Your task to perform on an android device: open app "Nova Launcher" Image 0: 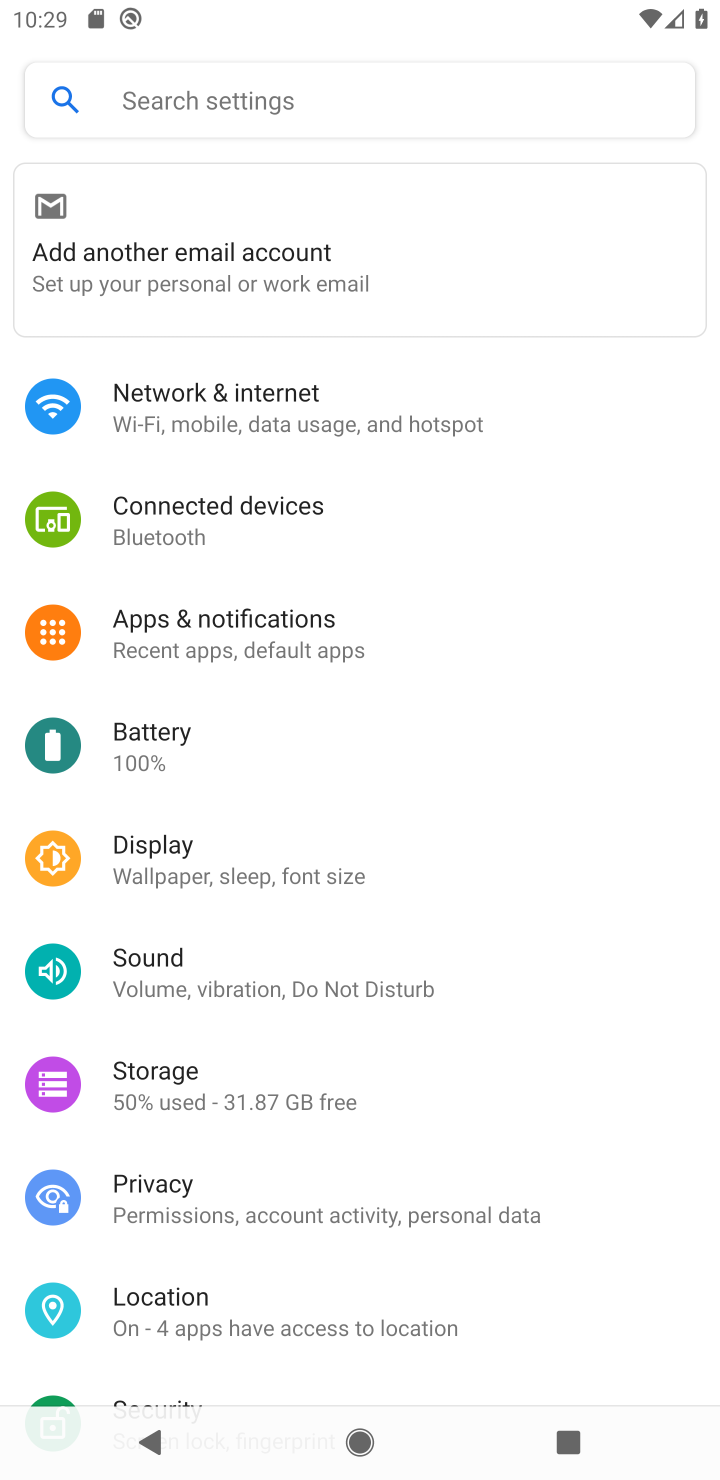
Step 0: press home button
Your task to perform on an android device: open app "Nova Launcher" Image 1: 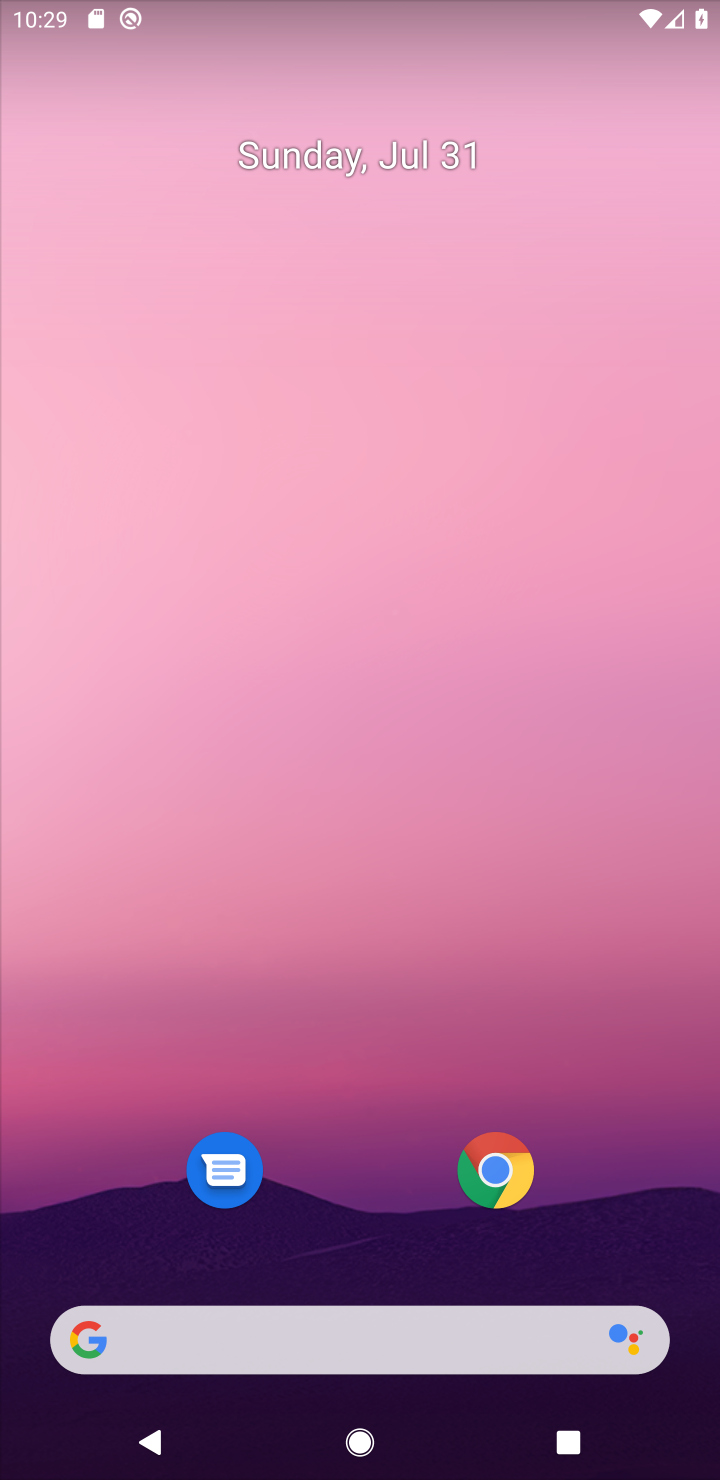
Step 1: drag from (681, 1214) to (235, 56)
Your task to perform on an android device: open app "Nova Launcher" Image 2: 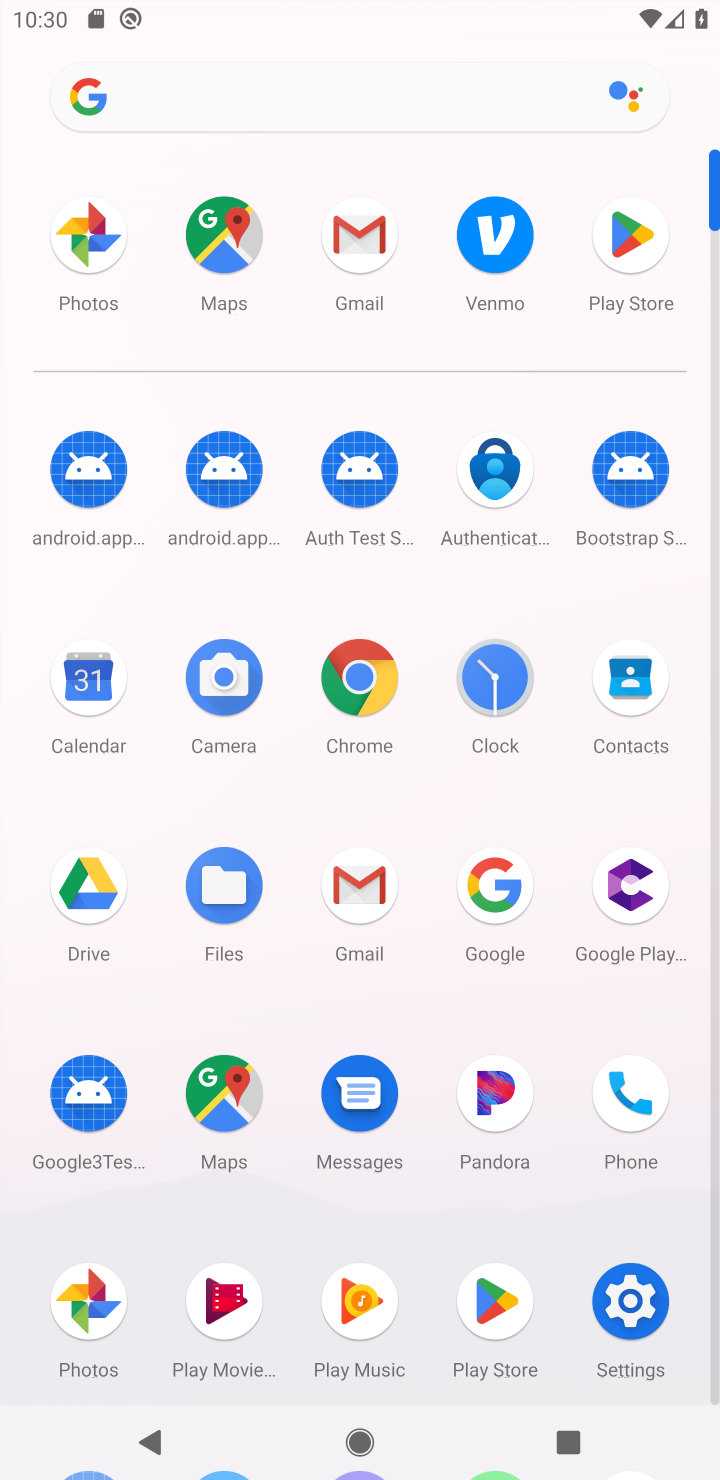
Step 2: click (636, 228)
Your task to perform on an android device: open app "Nova Launcher" Image 3: 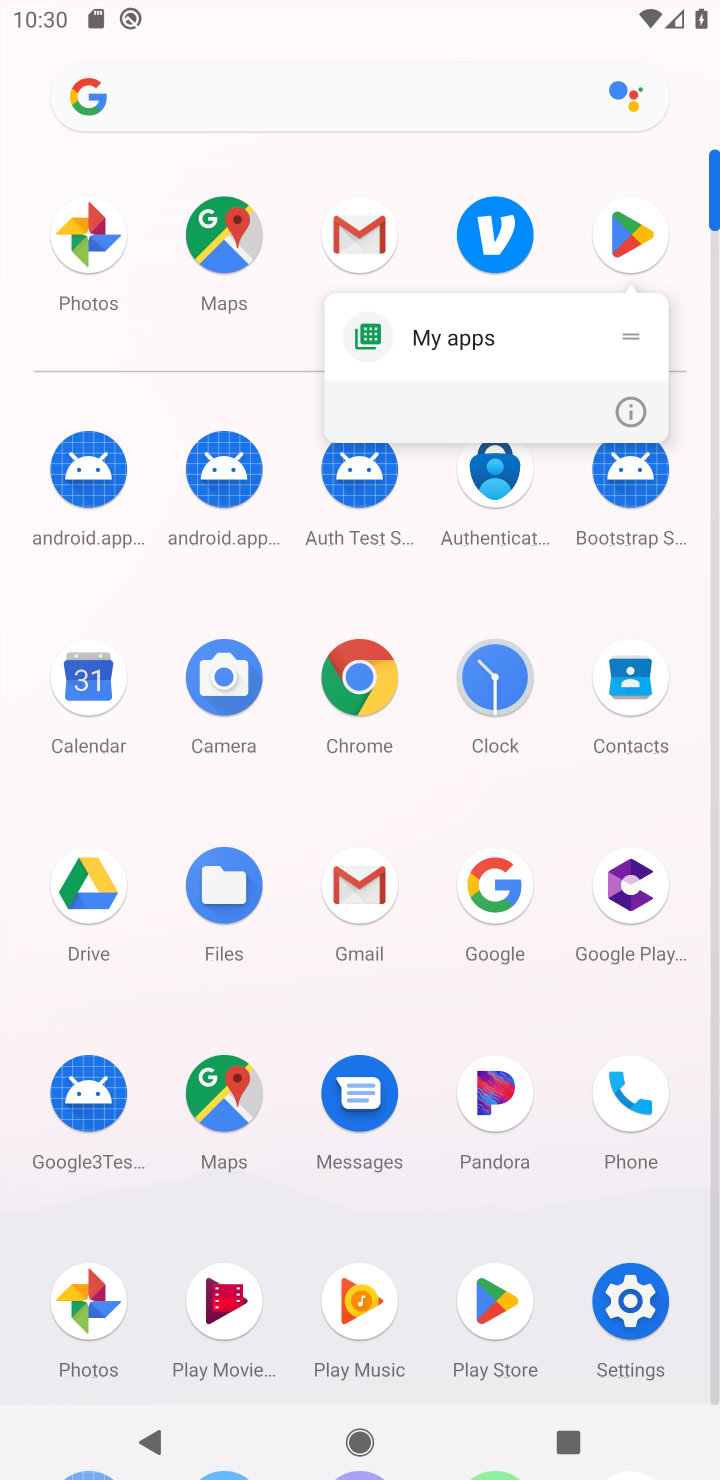
Step 3: click (636, 232)
Your task to perform on an android device: open app "Nova Launcher" Image 4: 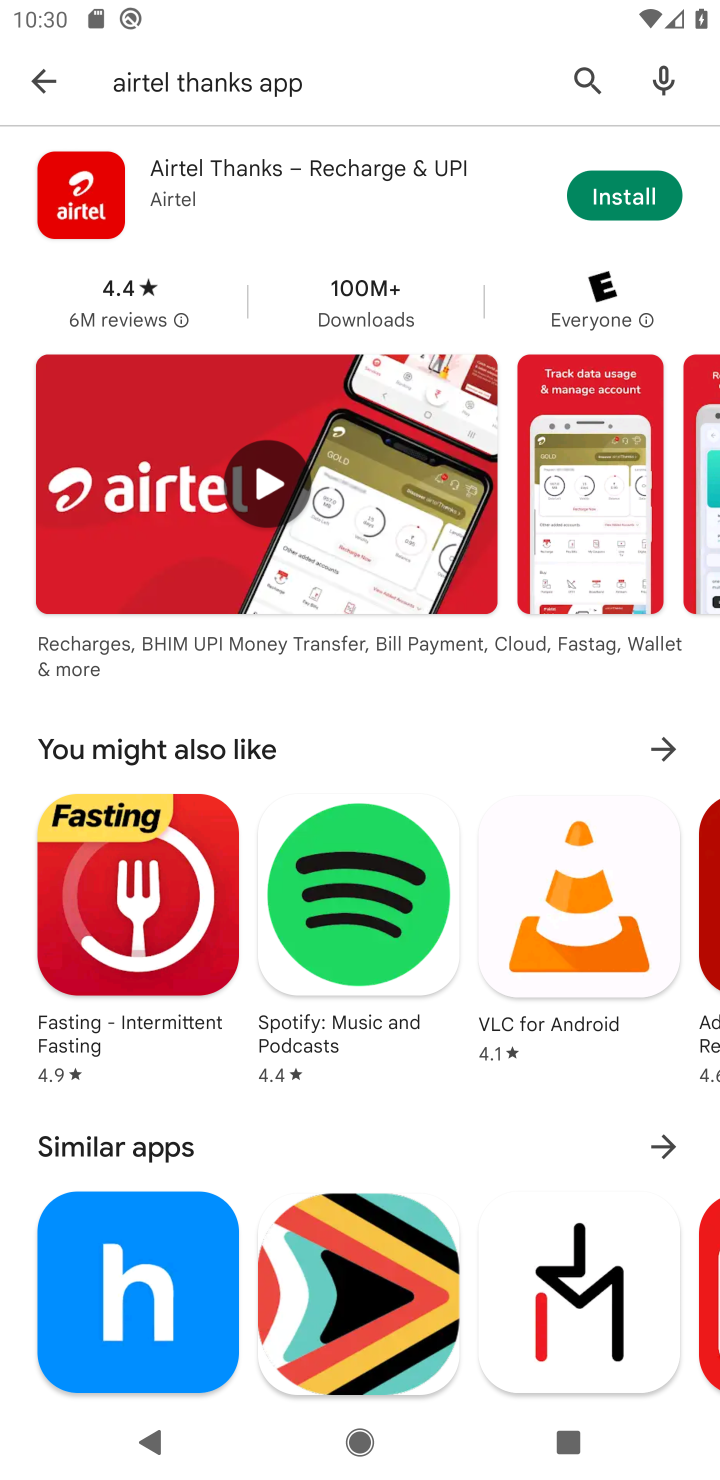
Step 4: press back button
Your task to perform on an android device: open app "Nova Launcher" Image 5: 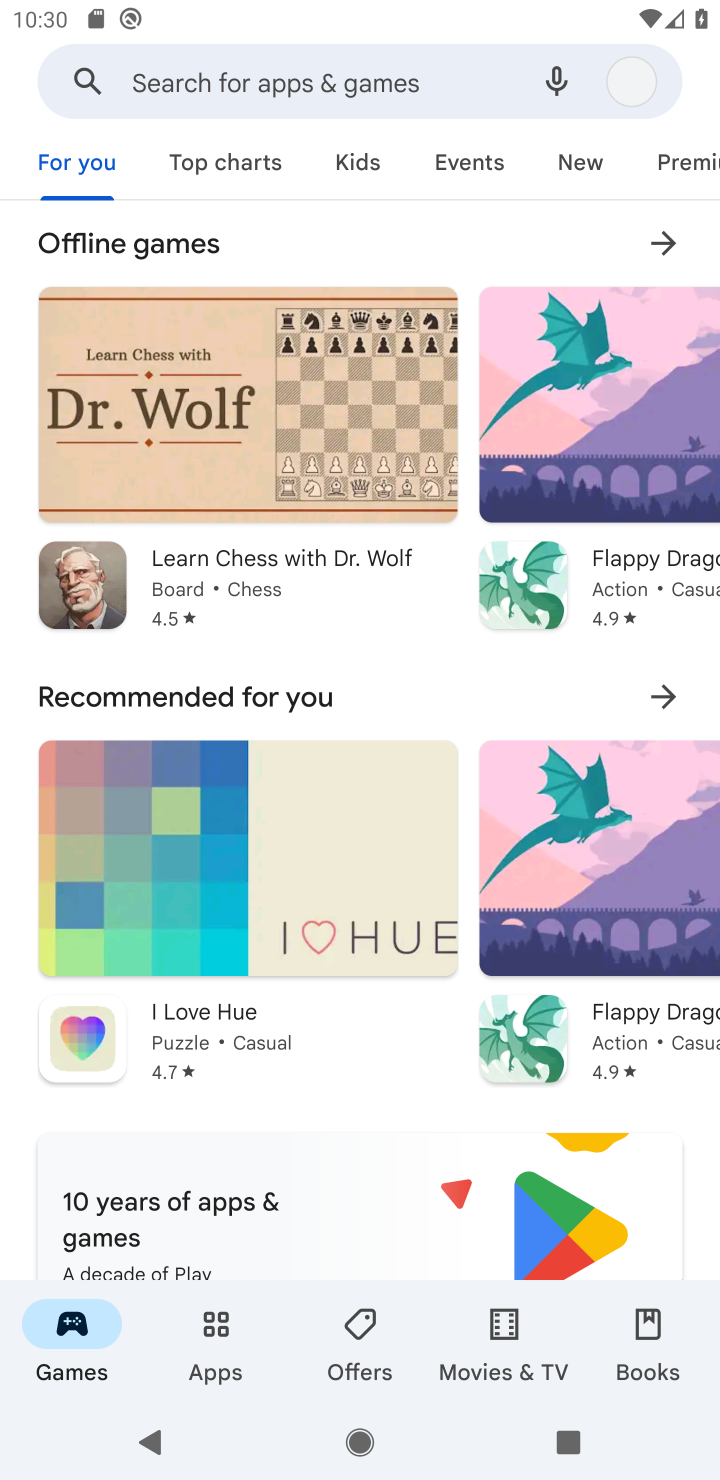
Step 5: click (182, 72)
Your task to perform on an android device: open app "Nova Launcher" Image 6: 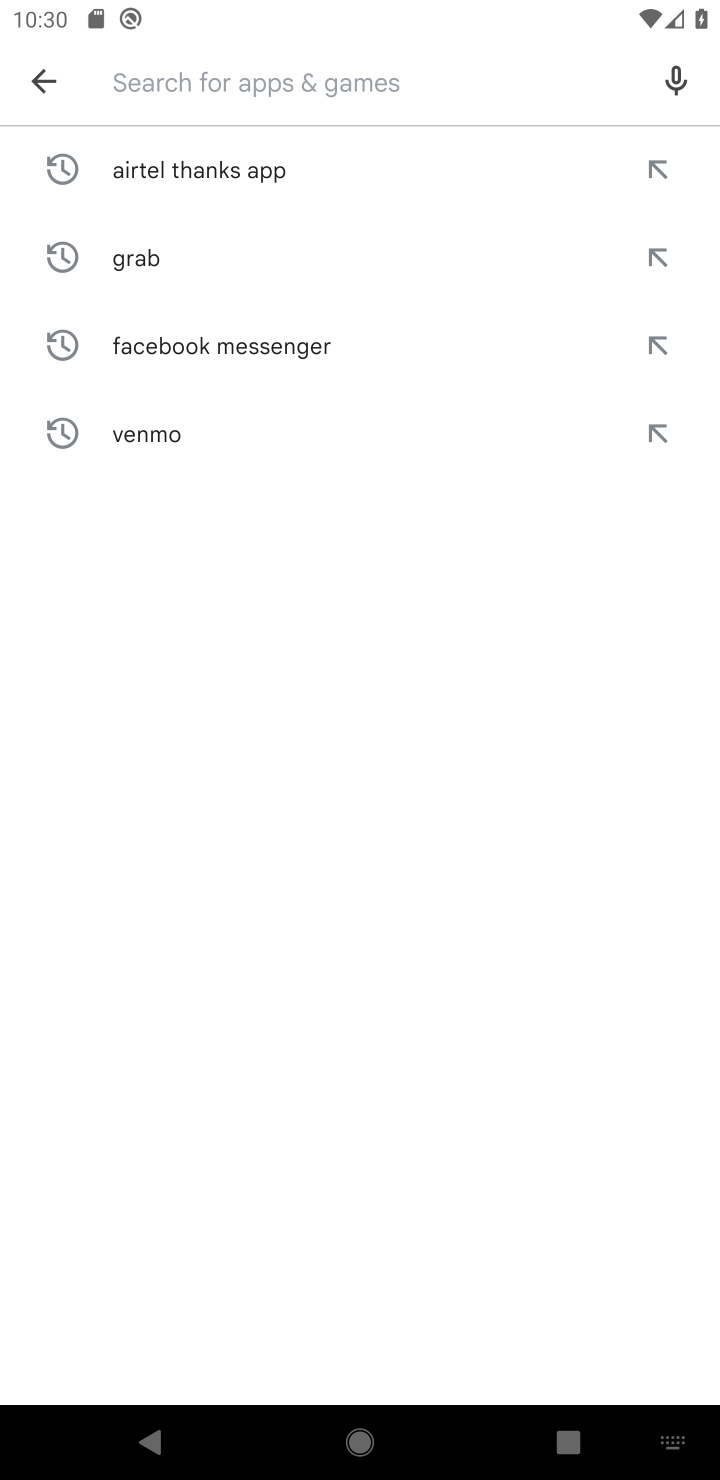
Step 6: type "Nova Launcher"
Your task to perform on an android device: open app "Nova Launcher" Image 7: 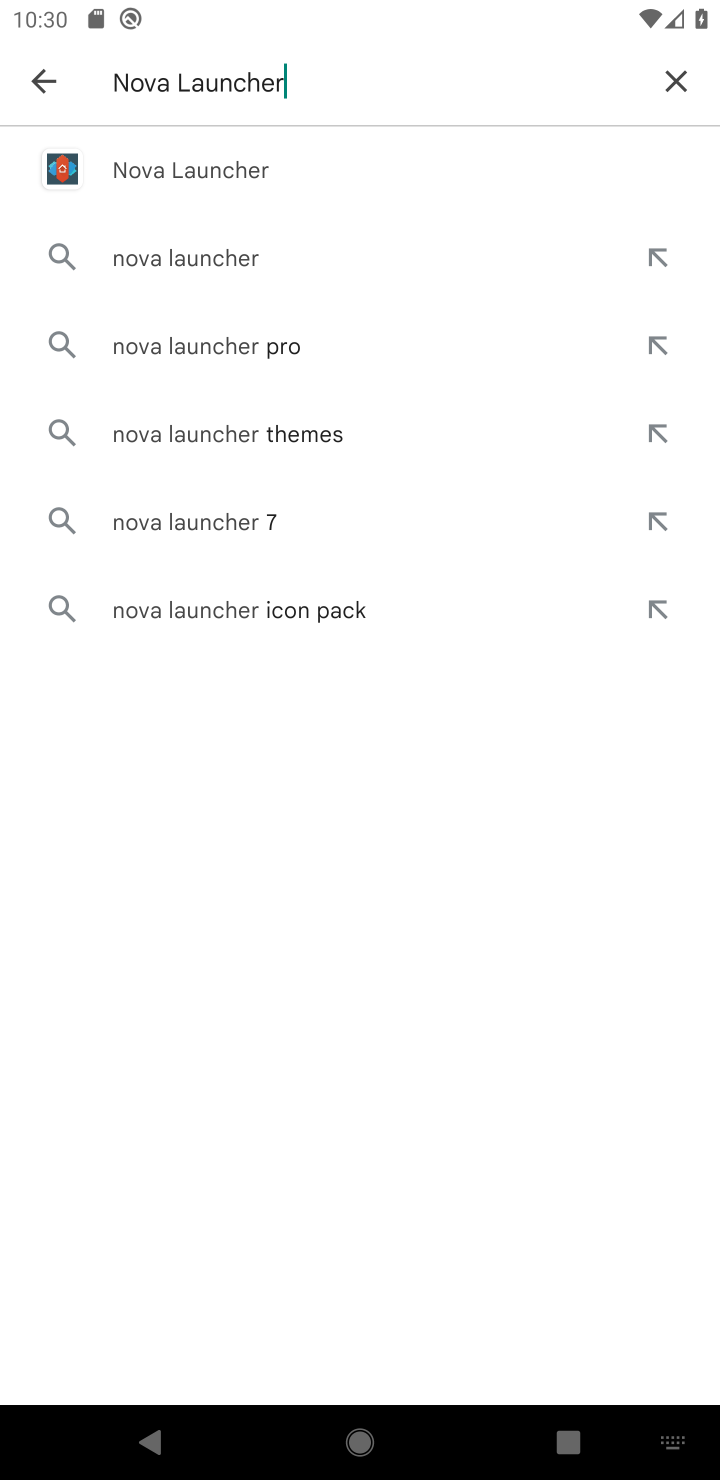
Step 7: click (239, 193)
Your task to perform on an android device: open app "Nova Launcher" Image 8: 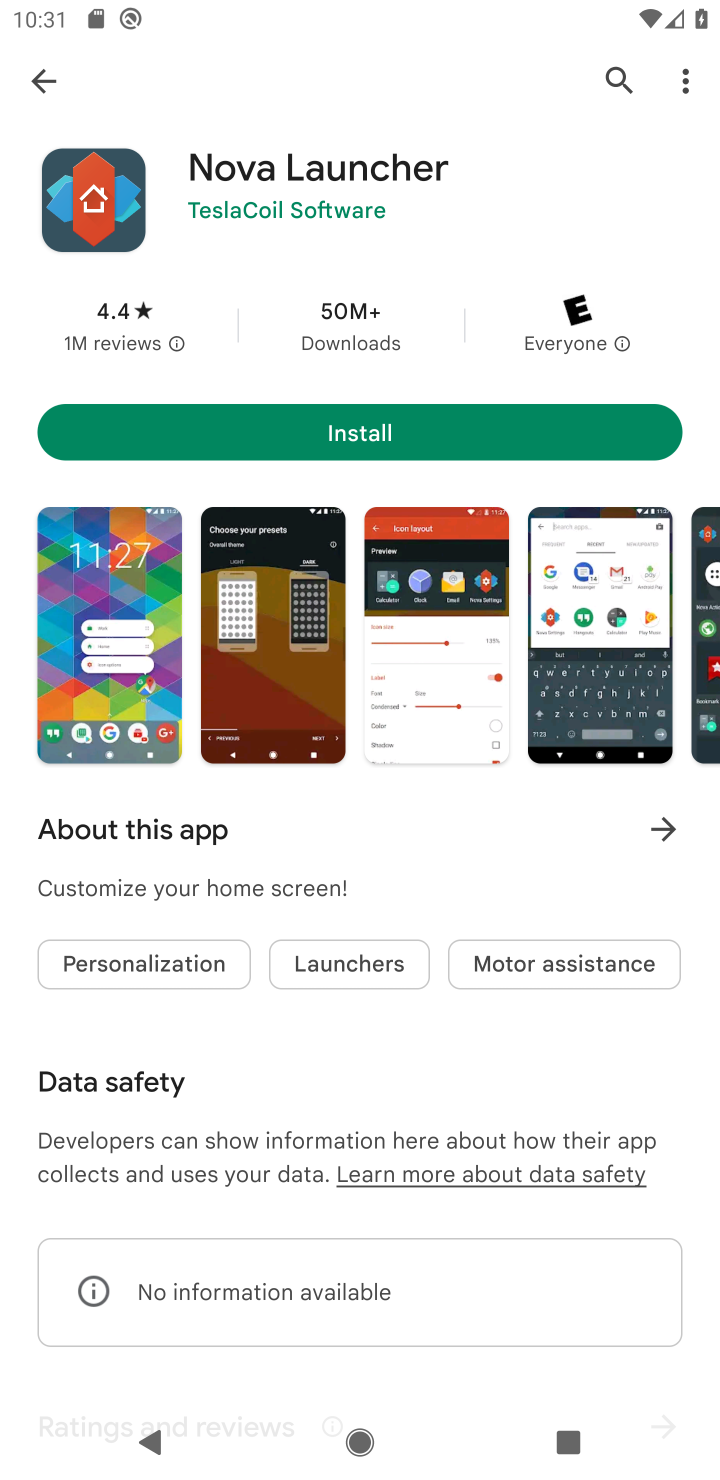
Step 8: task complete